Your task to perform on an android device: Search for custom wallets on etsy. Image 0: 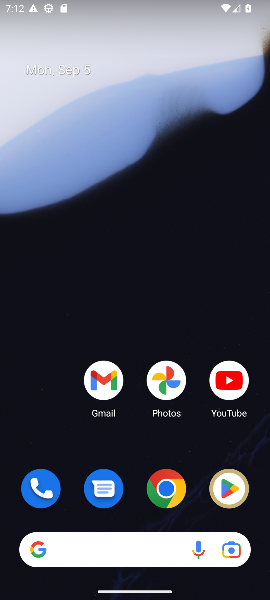
Step 0: click (178, 497)
Your task to perform on an android device: Search for custom wallets on etsy. Image 1: 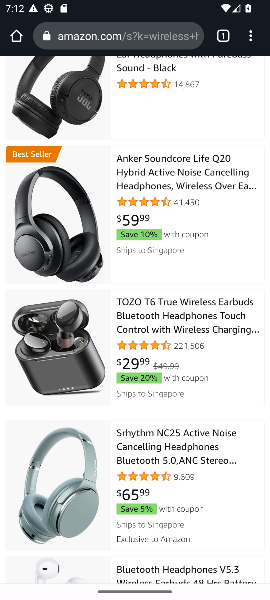
Step 1: click (130, 36)
Your task to perform on an android device: Search for custom wallets on etsy. Image 2: 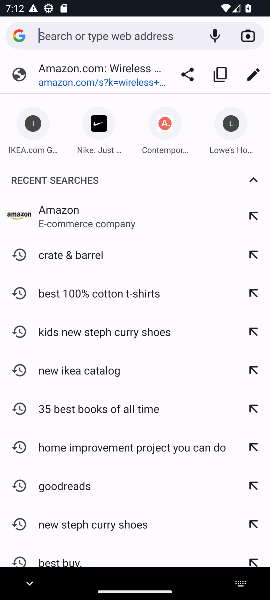
Step 2: type "etsy"
Your task to perform on an android device: Search for custom wallets on etsy. Image 3: 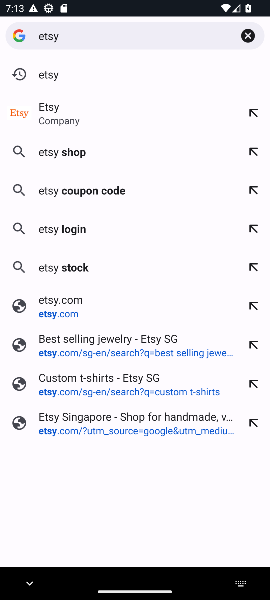
Step 3: press enter
Your task to perform on an android device: Search for custom wallets on etsy. Image 4: 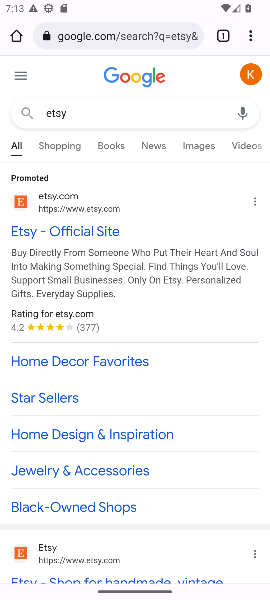
Step 4: click (93, 230)
Your task to perform on an android device: Search for custom wallets on etsy. Image 5: 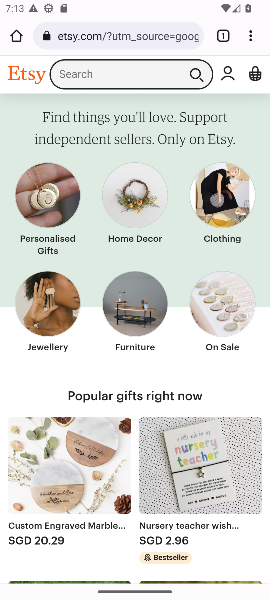
Step 5: click (121, 76)
Your task to perform on an android device: Search for custom wallets on etsy. Image 6: 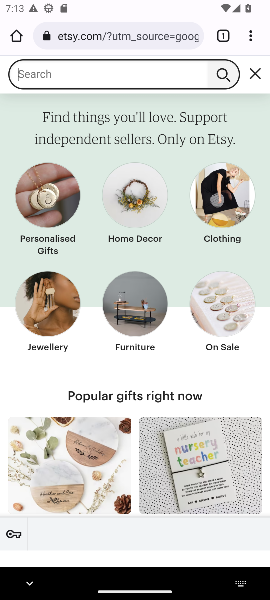
Step 6: type "custom wallets"
Your task to perform on an android device: Search for custom wallets on etsy. Image 7: 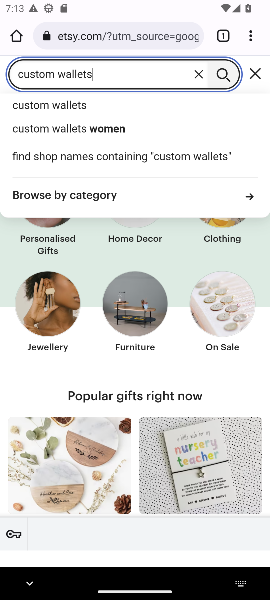
Step 7: press enter
Your task to perform on an android device: Search for custom wallets on etsy. Image 8: 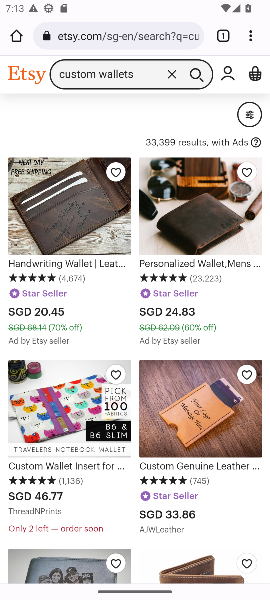
Step 8: task complete